Your task to perform on an android device: stop showing notifications on the lock screen Image 0: 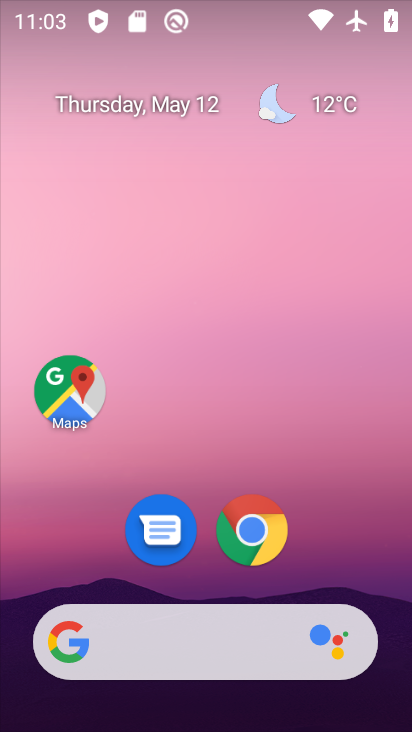
Step 0: drag from (184, 644) to (333, 135)
Your task to perform on an android device: stop showing notifications on the lock screen Image 1: 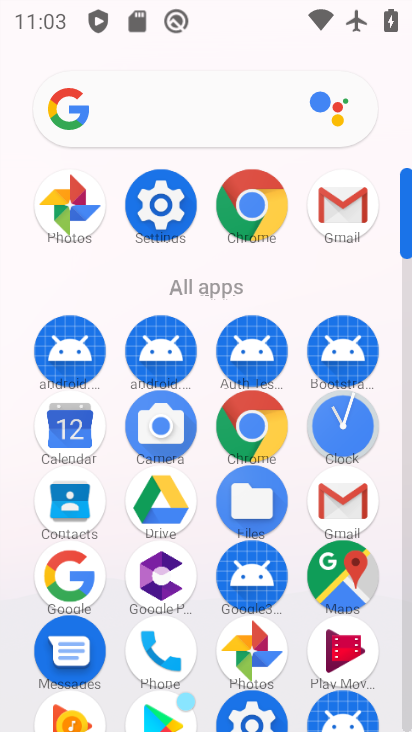
Step 1: click (159, 206)
Your task to perform on an android device: stop showing notifications on the lock screen Image 2: 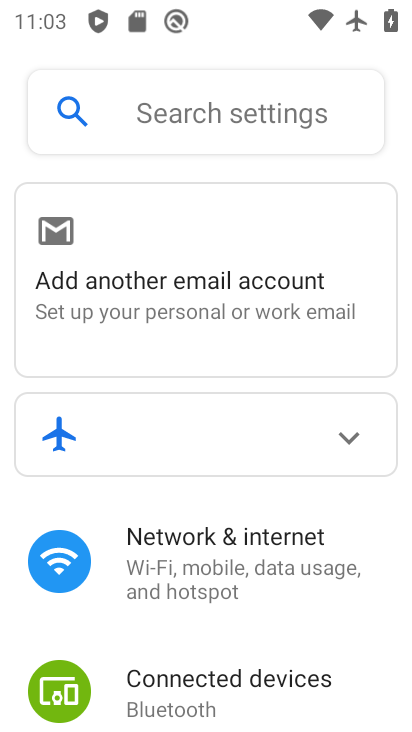
Step 2: drag from (236, 606) to (276, 194)
Your task to perform on an android device: stop showing notifications on the lock screen Image 3: 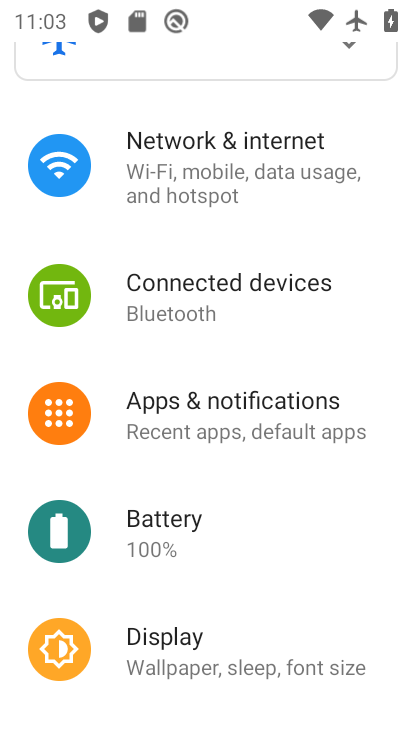
Step 3: drag from (217, 641) to (327, 208)
Your task to perform on an android device: stop showing notifications on the lock screen Image 4: 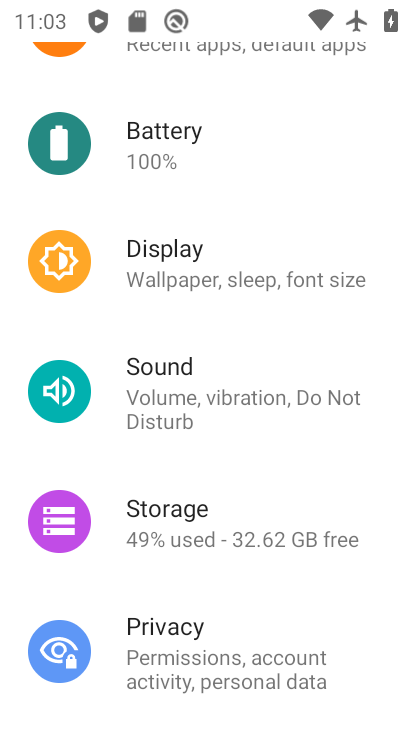
Step 4: drag from (293, 201) to (190, 675)
Your task to perform on an android device: stop showing notifications on the lock screen Image 5: 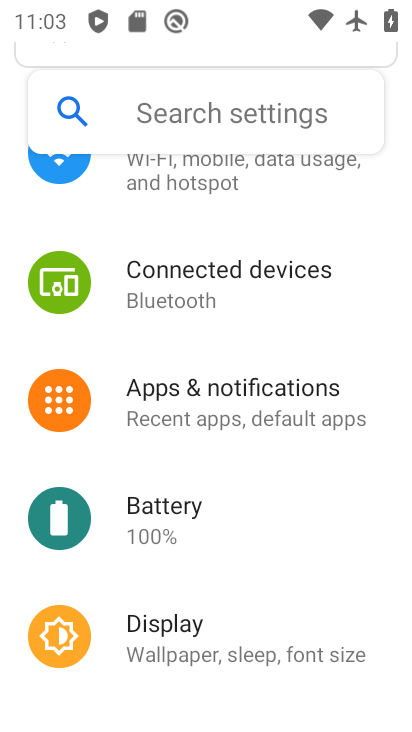
Step 5: click (295, 387)
Your task to perform on an android device: stop showing notifications on the lock screen Image 6: 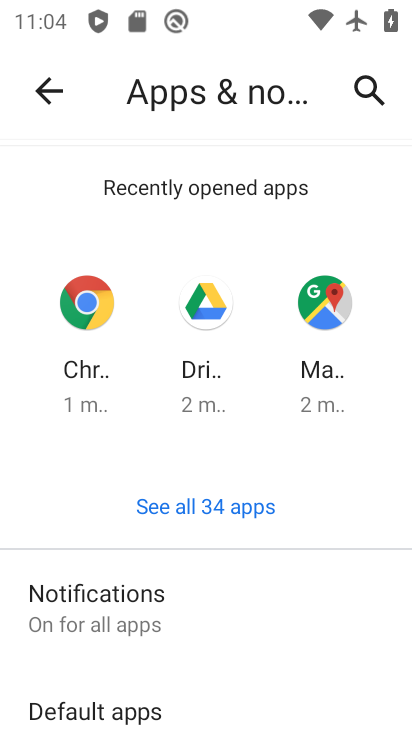
Step 6: click (138, 614)
Your task to perform on an android device: stop showing notifications on the lock screen Image 7: 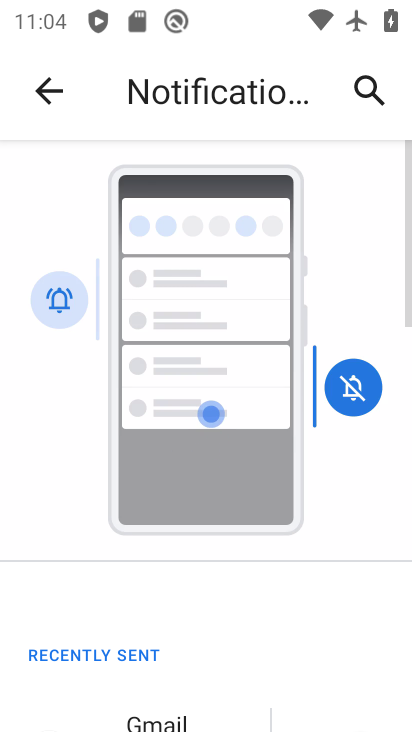
Step 7: drag from (202, 681) to (336, 180)
Your task to perform on an android device: stop showing notifications on the lock screen Image 8: 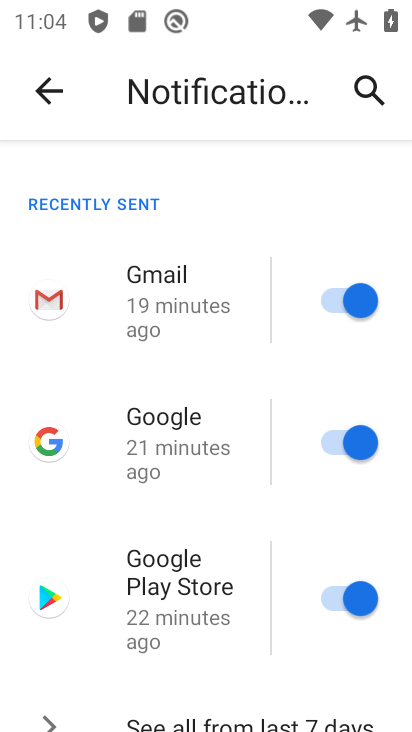
Step 8: drag from (241, 652) to (311, 281)
Your task to perform on an android device: stop showing notifications on the lock screen Image 9: 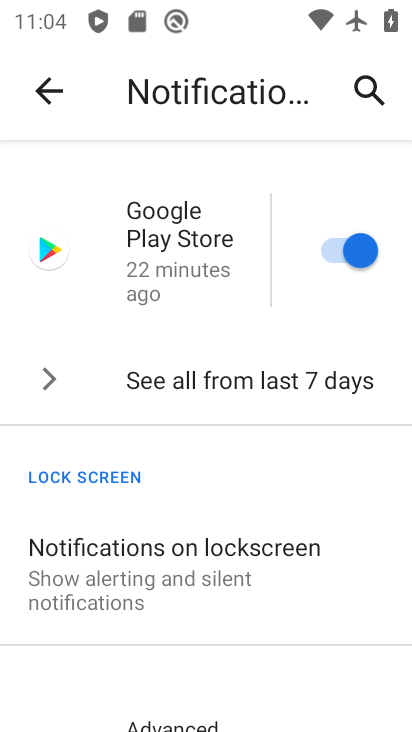
Step 9: click (182, 580)
Your task to perform on an android device: stop showing notifications on the lock screen Image 10: 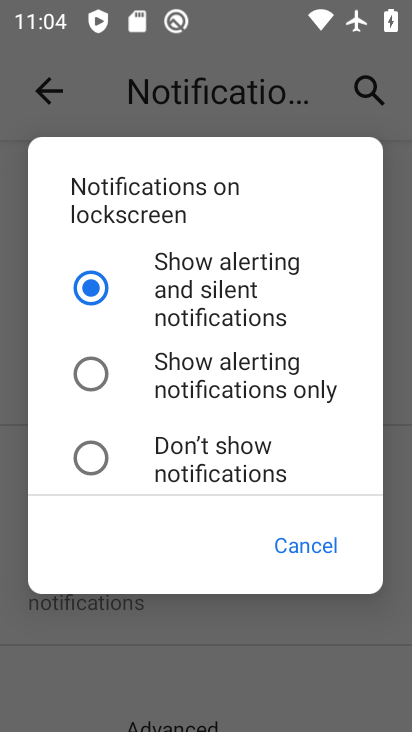
Step 10: click (96, 457)
Your task to perform on an android device: stop showing notifications on the lock screen Image 11: 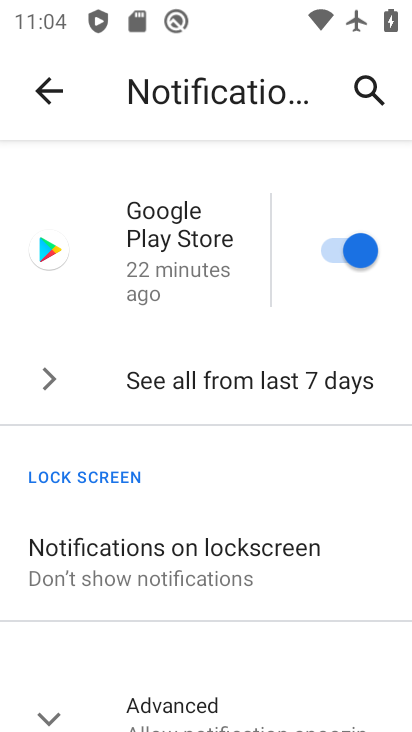
Step 11: task complete